Your task to perform on an android device: turn off translation in the chrome app Image 0: 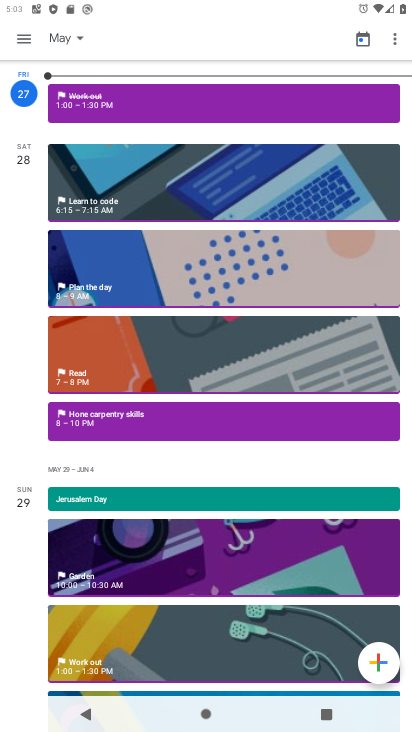
Step 0: press home button
Your task to perform on an android device: turn off translation in the chrome app Image 1: 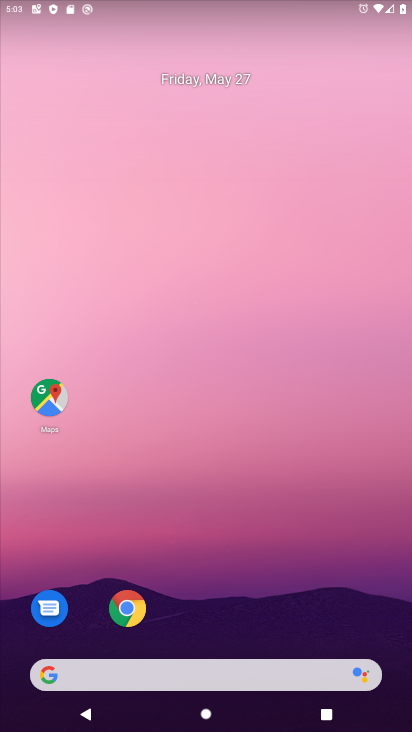
Step 1: click (136, 617)
Your task to perform on an android device: turn off translation in the chrome app Image 2: 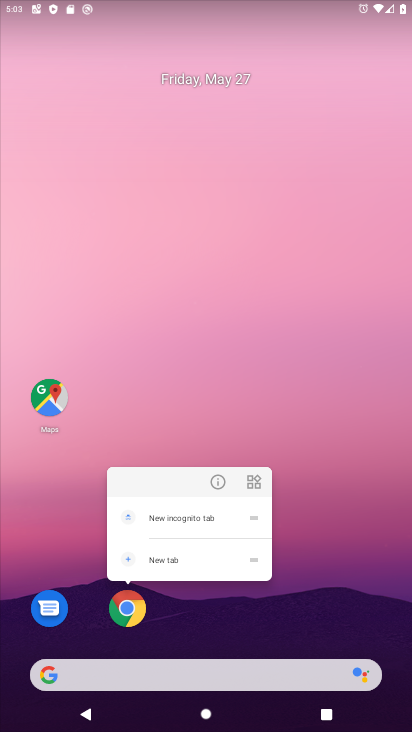
Step 2: click (129, 611)
Your task to perform on an android device: turn off translation in the chrome app Image 3: 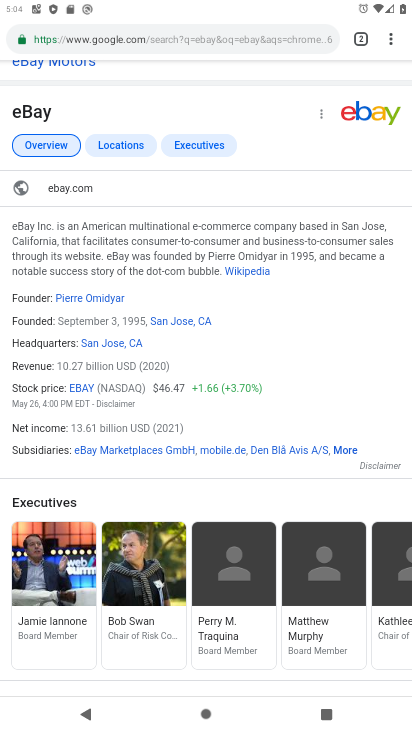
Step 3: click (392, 37)
Your task to perform on an android device: turn off translation in the chrome app Image 4: 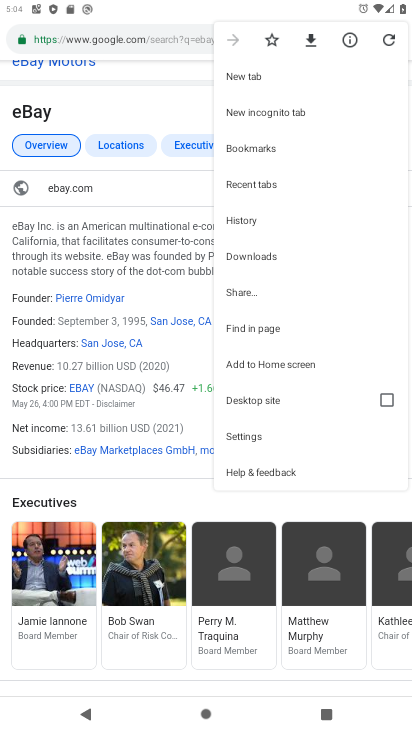
Step 4: click (231, 435)
Your task to perform on an android device: turn off translation in the chrome app Image 5: 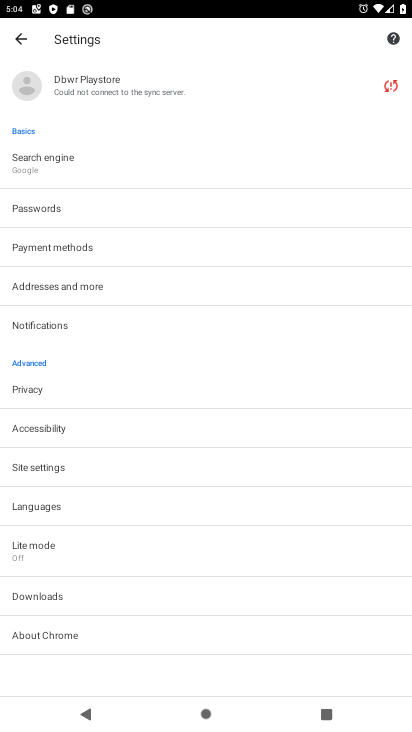
Step 5: click (55, 507)
Your task to perform on an android device: turn off translation in the chrome app Image 6: 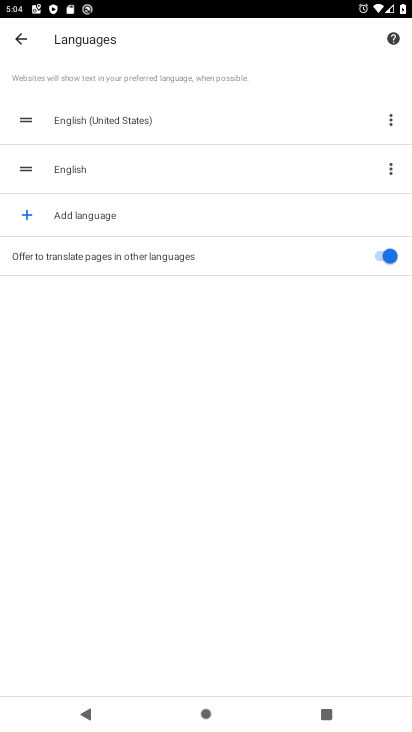
Step 6: click (385, 252)
Your task to perform on an android device: turn off translation in the chrome app Image 7: 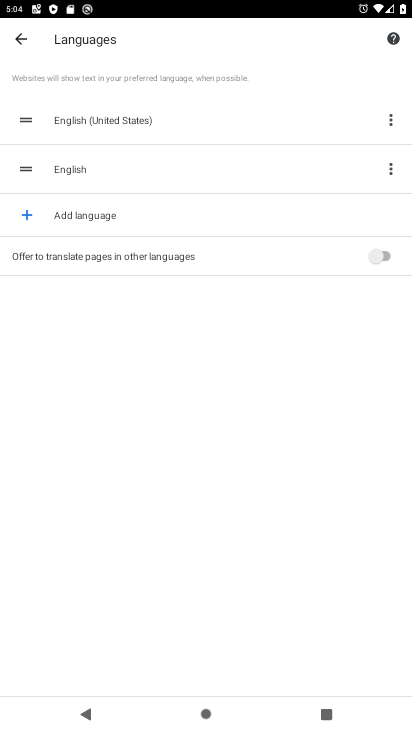
Step 7: task complete